Your task to perform on an android device: turn on priority inbox in the gmail app Image 0: 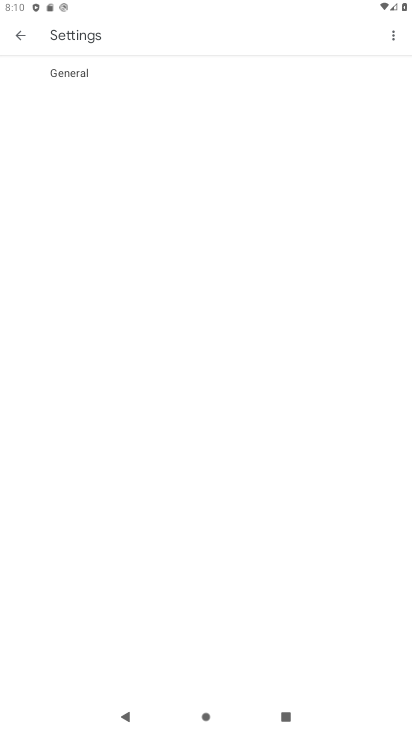
Step 0: press home button
Your task to perform on an android device: turn on priority inbox in the gmail app Image 1: 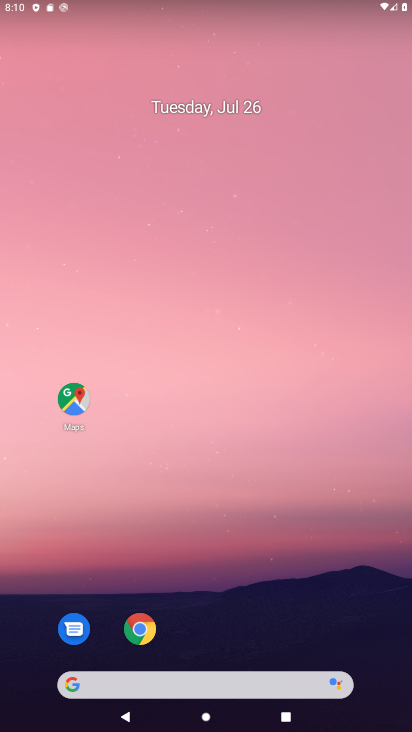
Step 1: drag from (190, 632) to (138, 240)
Your task to perform on an android device: turn on priority inbox in the gmail app Image 2: 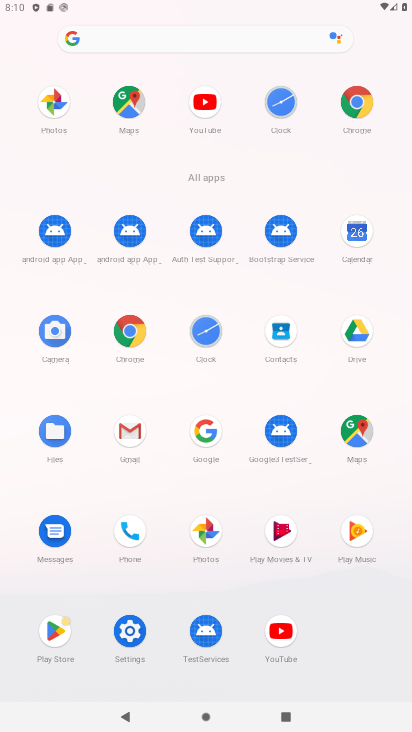
Step 2: click (122, 453)
Your task to perform on an android device: turn on priority inbox in the gmail app Image 3: 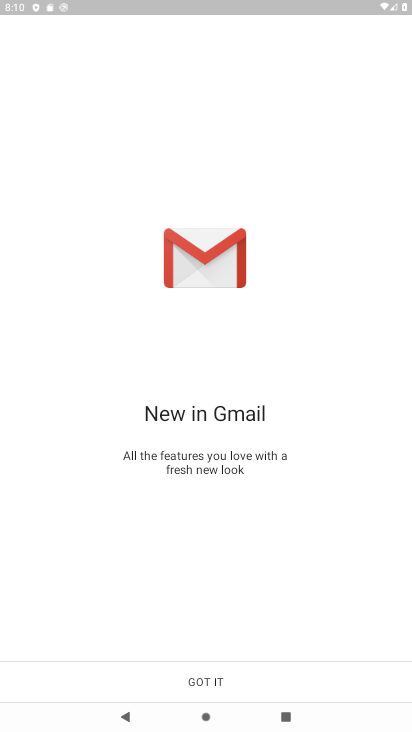
Step 3: click (180, 670)
Your task to perform on an android device: turn on priority inbox in the gmail app Image 4: 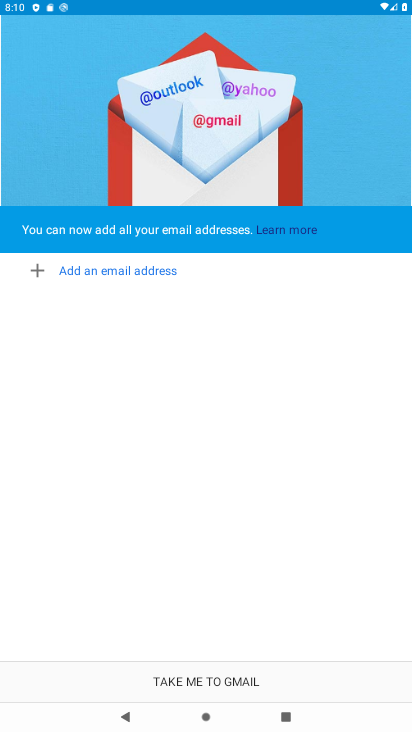
Step 4: click (223, 677)
Your task to perform on an android device: turn on priority inbox in the gmail app Image 5: 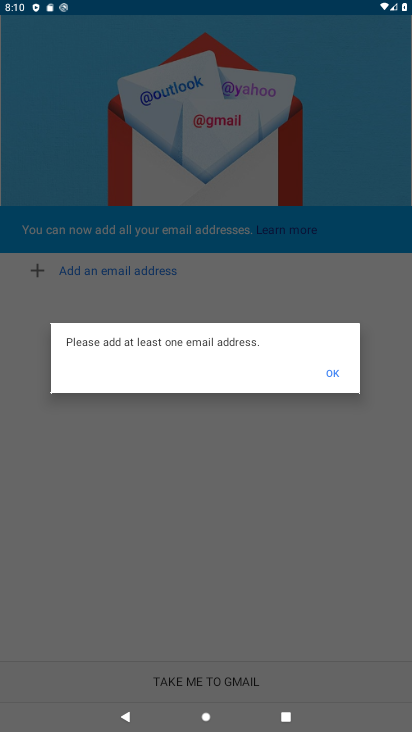
Step 5: click (325, 365)
Your task to perform on an android device: turn on priority inbox in the gmail app Image 6: 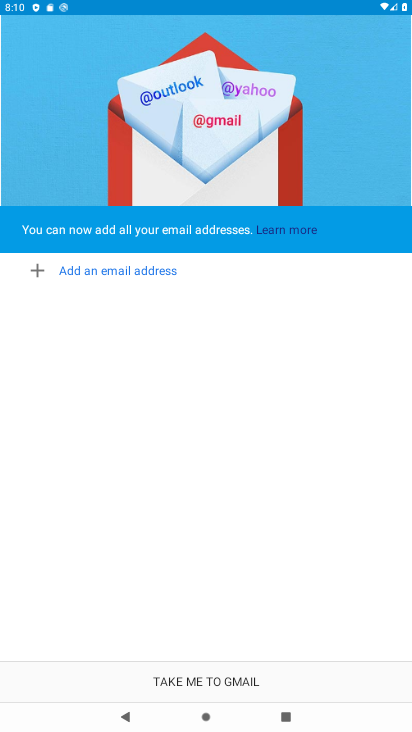
Step 6: click (170, 670)
Your task to perform on an android device: turn on priority inbox in the gmail app Image 7: 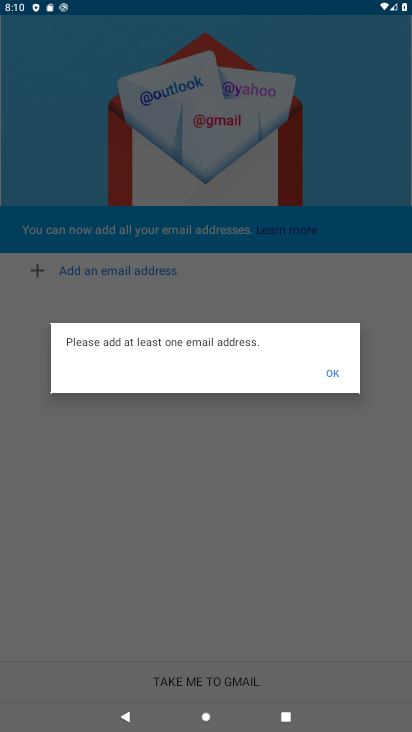
Step 7: task complete